Your task to perform on an android device: open the mobile data screen to see how much data has been used Image 0: 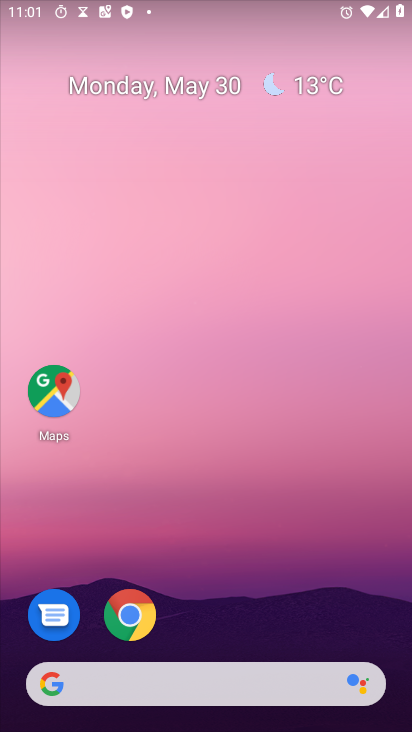
Step 0: drag from (298, 514) to (325, 53)
Your task to perform on an android device: open the mobile data screen to see how much data has been used Image 1: 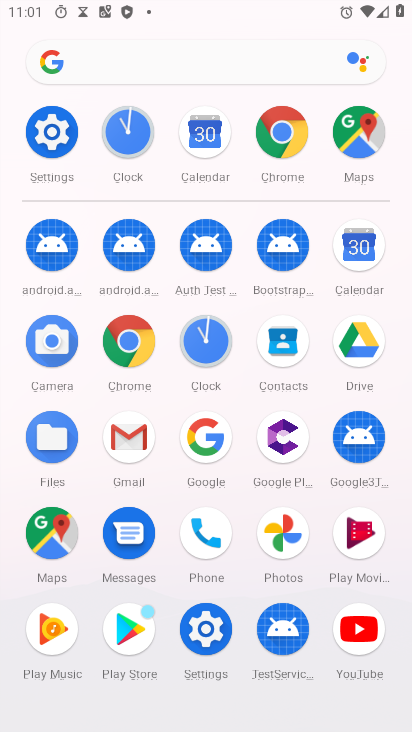
Step 1: click (28, 153)
Your task to perform on an android device: open the mobile data screen to see how much data has been used Image 2: 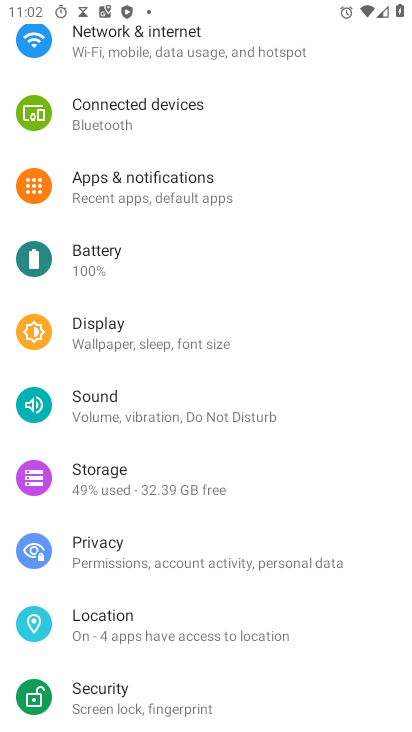
Step 2: drag from (243, 256) to (303, 689)
Your task to perform on an android device: open the mobile data screen to see how much data has been used Image 3: 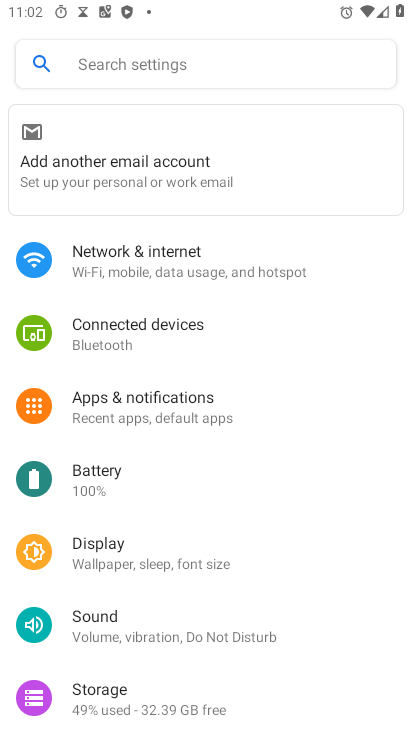
Step 3: drag from (231, 372) to (278, 655)
Your task to perform on an android device: open the mobile data screen to see how much data has been used Image 4: 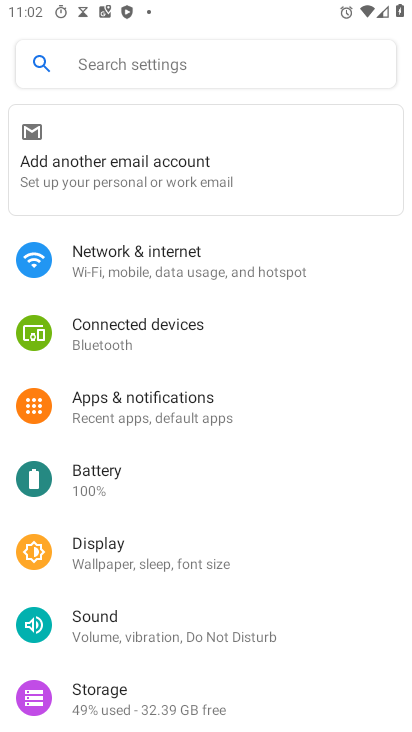
Step 4: click (119, 251)
Your task to perform on an android device: open the mobile data screen to see how much data has been used Image 5: 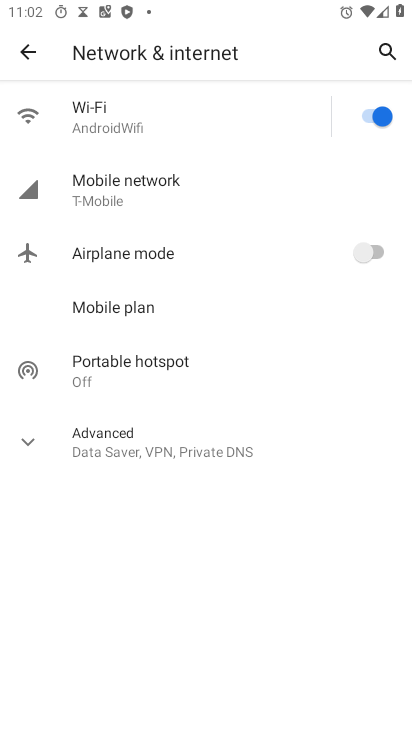
Step 5: click (141, 188)
Your task to perform on an android device: open the mobile data screen to see how much data has been used Image 6: 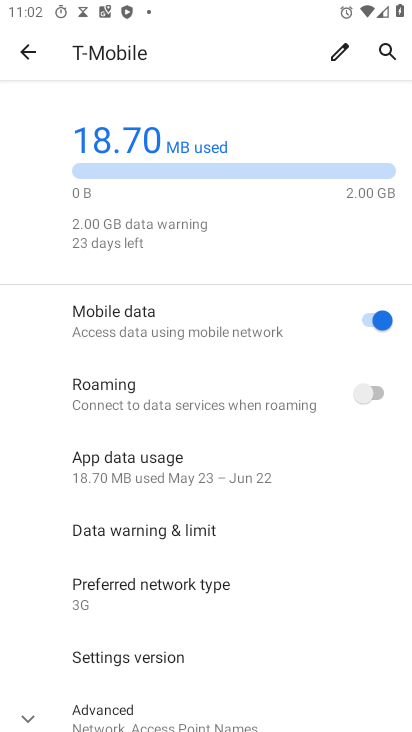
Step 6: task complete